Your task to perform on an android device: Empty the shopping cart on bestbuy. Search for logitech g pro on bestbuy, select the first entry, and add it to the cart. Image 0: 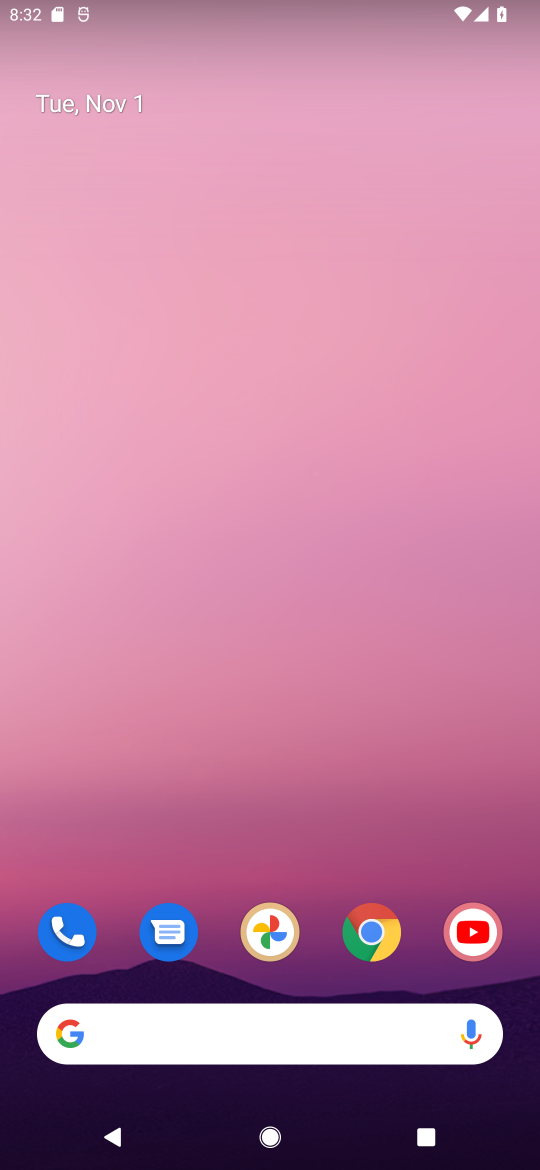
Step 0: click (380, 940)
Your task to perform on an android device: Empty the shopping cart on bestbuy. Search for logitech g pro on bestbuy, select the first entry, and add it to the cart. Image 1: 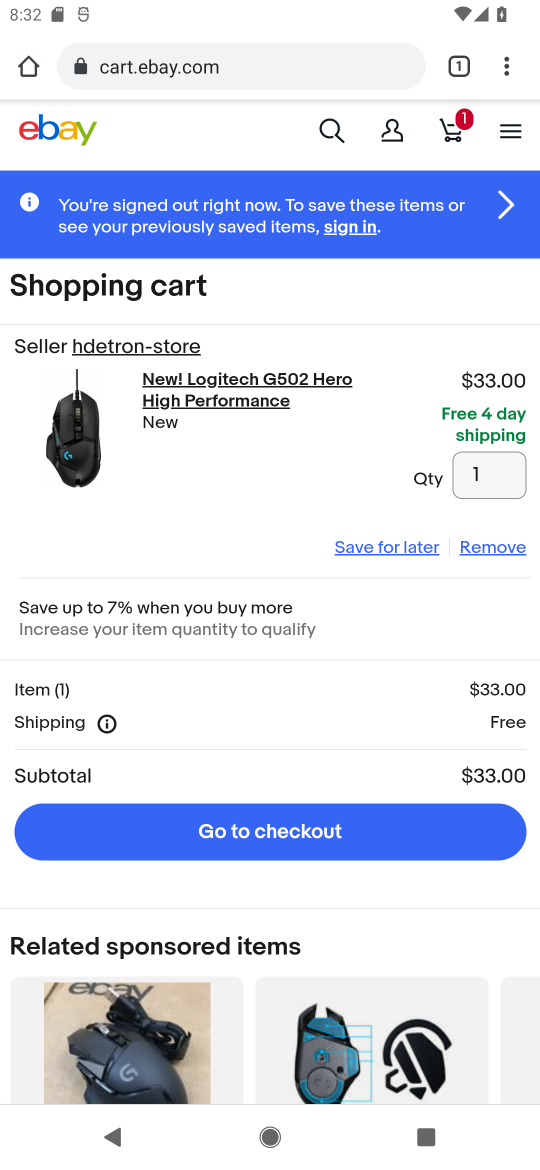
Step 1: click (221, 56)
Your task to perform on an android device: Empty the shopping cart on bestbuy. Search for logitech g pro on bestbuy, select the first entry, and add it to the cart. Image 2: 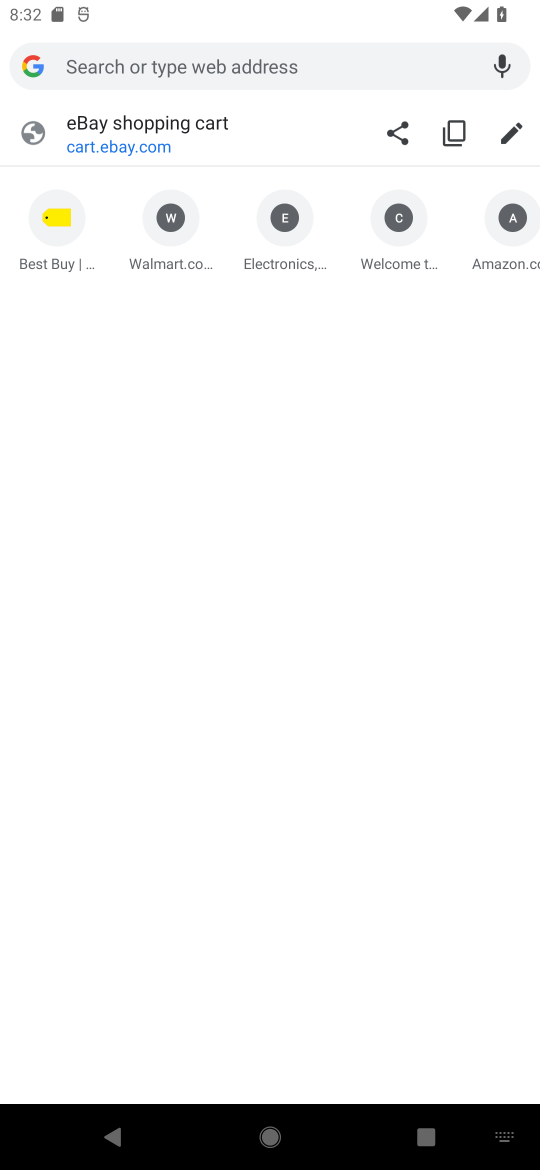
Step 2: type "bestbuy.com"
Your task to perform on an android device: Empty the shopping cart on bestbuy. Search for logitech g pro on bestbuy, select the first entry, and add it to the cart. Image 3: 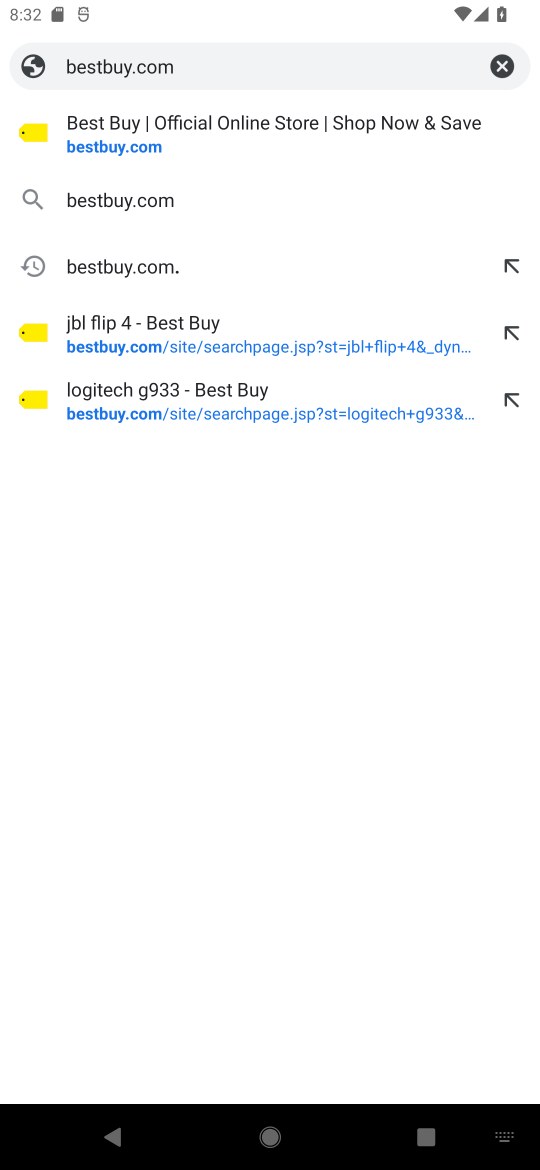
Step 3: click (121, 162)
Your task to perform on an android device: Empty the shopping cart on bestbuy. Search for logitech g pro on bestbuy, select the first entry, and add it to the cart. Image 4: 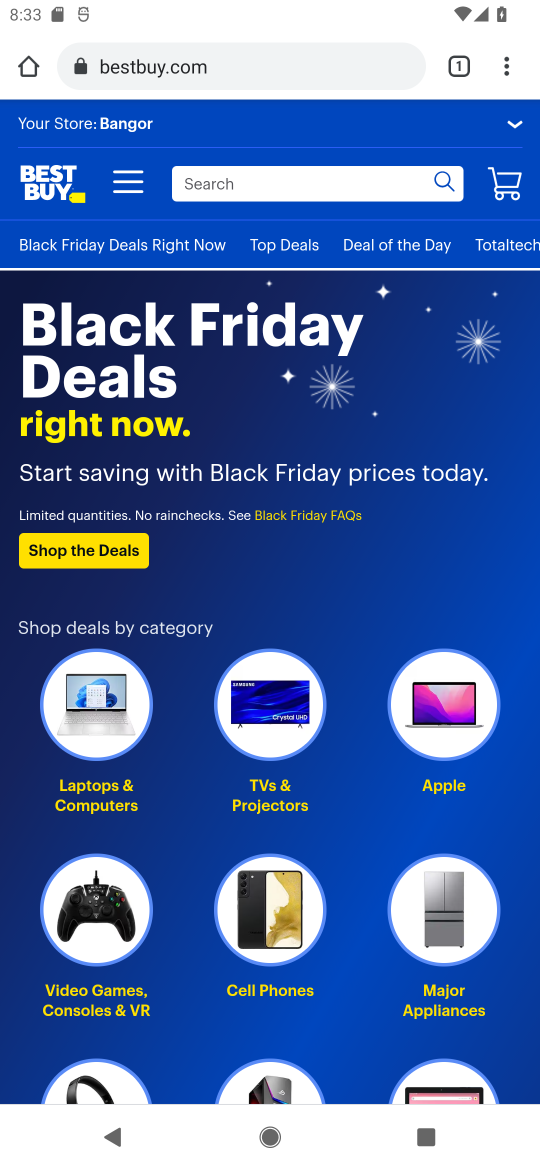
Step 4: click (506, 194)
Your task to perform on an android device: Empty the shopping cart on bestbuy. Search for logitech g pro on bestbuy, select the first entry, and add it to the cart. Image 5: 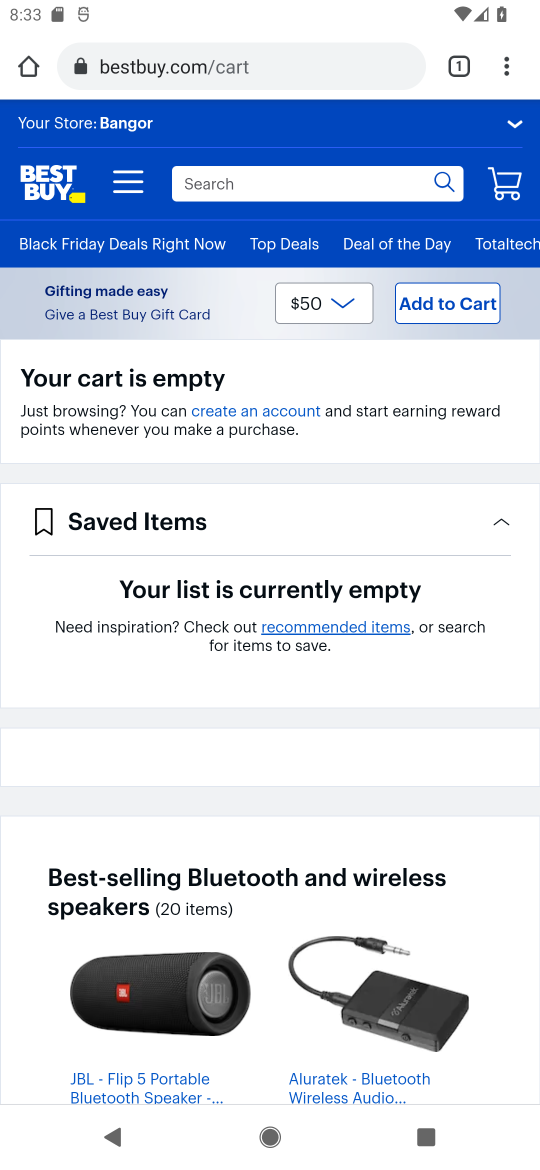
Step 5: click (303, 178)
Your task to perform on an android device: Empty the shopping cart on bestbuy. Search for logitech g pro on bestbuy, select the first entry, and add it to the cart. Image 6: 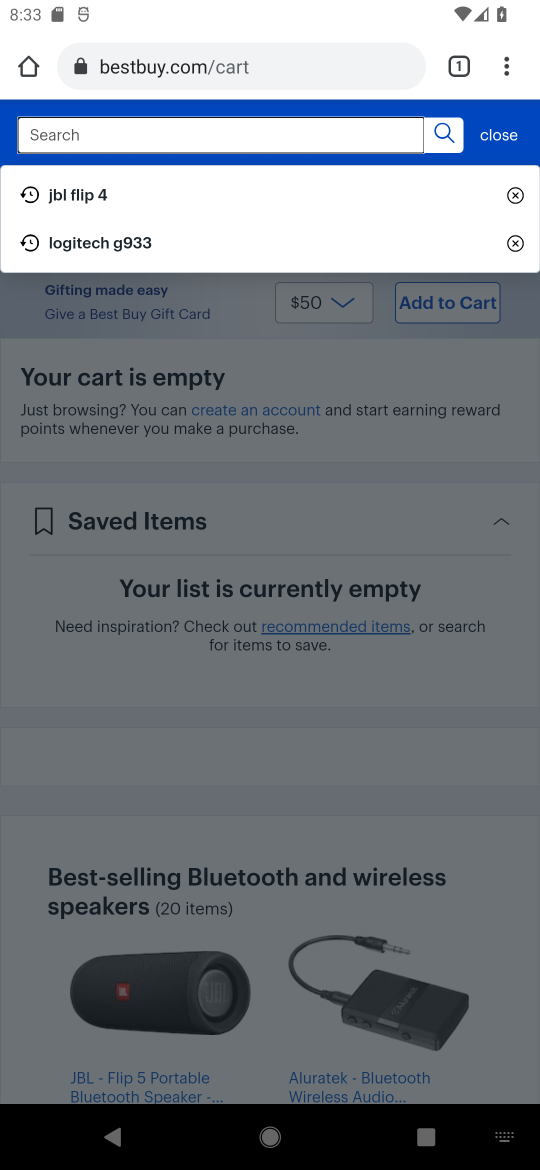
Step 6: type "logitech g pro"
Your task to perform on an android device: Empty the shopping cart on bestbuy. Search for logitech g pro on bestbuy, select the first entry, and add it to the cart. Image 7: 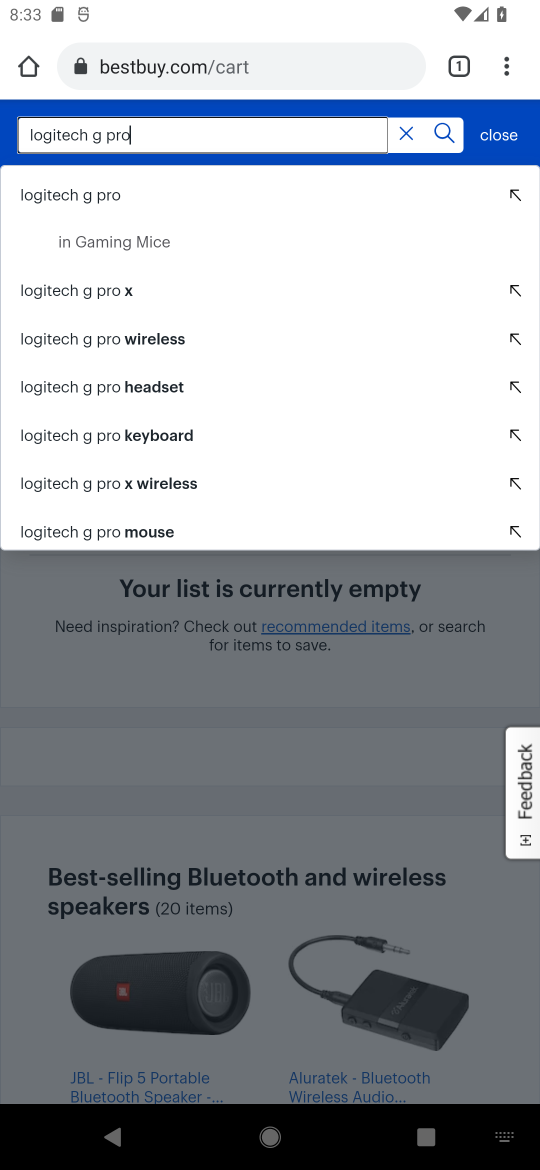
Step 7: click (67, 196)
Your task to perform on an android device: Empty the shopping cart on bestbuy. Search for logitech g pro on bestbuy, select the first entry, and add it to the cart. Image 8: 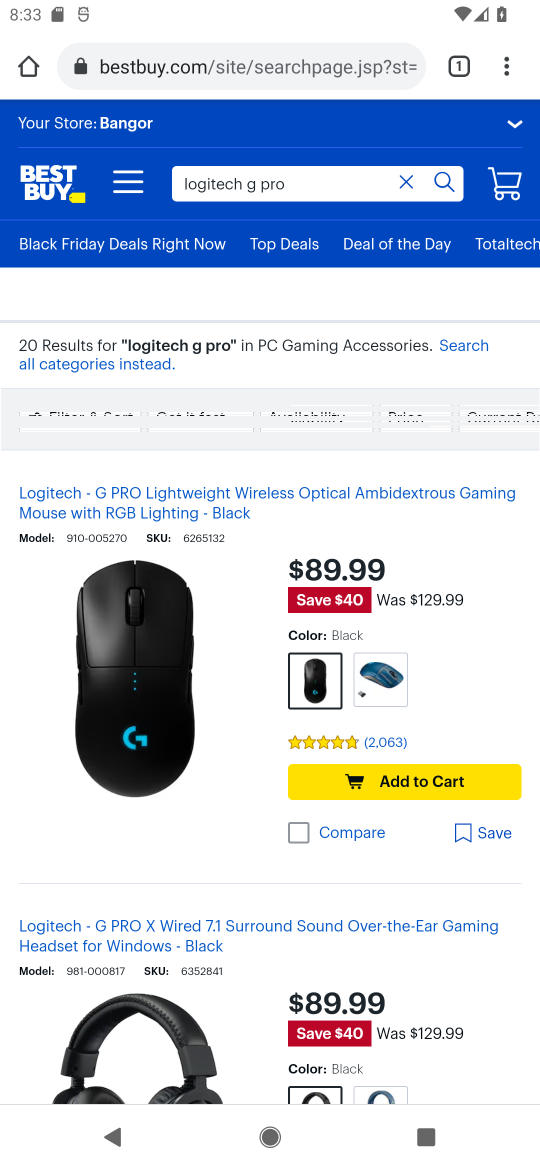
Step 8: click (166, 658)
Your task to perform on an android device: Empty the shopping cart on bestbuy. Search for logitech g pro on bestbuy, select the first entry, and add it to the cart. Image 9: 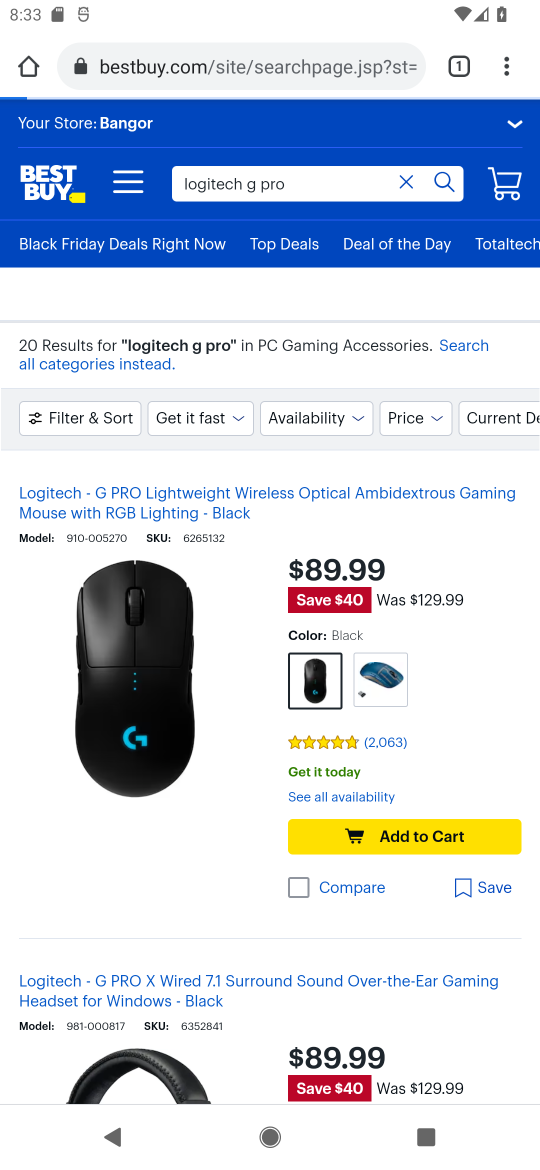
Step 9: click (382, 835)
Your task to perform on an android device: Empty the shopping cart on bestbuy. Search for logitech g pro on bestbuy, select the first entry, and add it to the cart. Image 10: 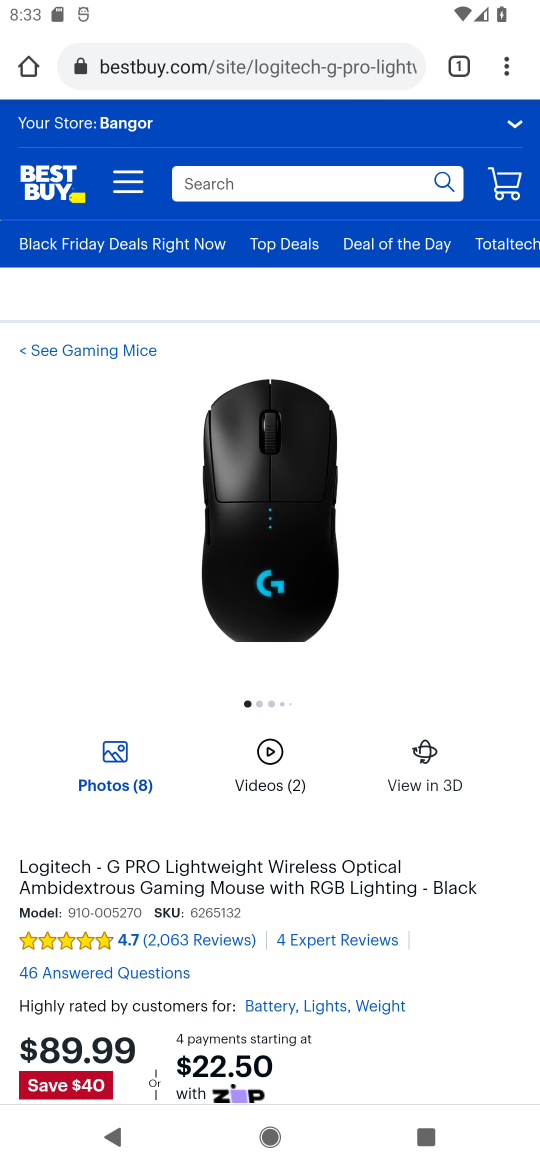
Step 10: drag from (250, 886) to (286, 497)
Your task to perform on an android device: Empty the shopping cart on bestbuy. Search for logitech g pro on bestbuy, select the first entry, and add it to the cart. Image 11: 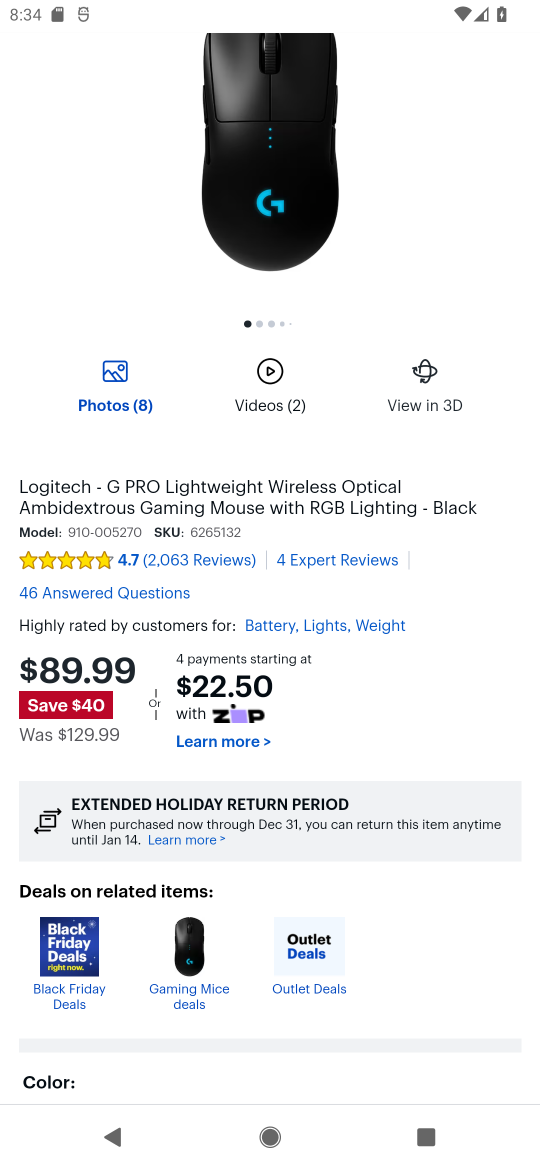
Step 11: drag from (258, 829) to (286, 459)
Your task to perform on an android device: Empty the shopping cart on bestbuy. Search for logitech g pro on bestbuy, select the first entry, and add it to the cart. Image 12: 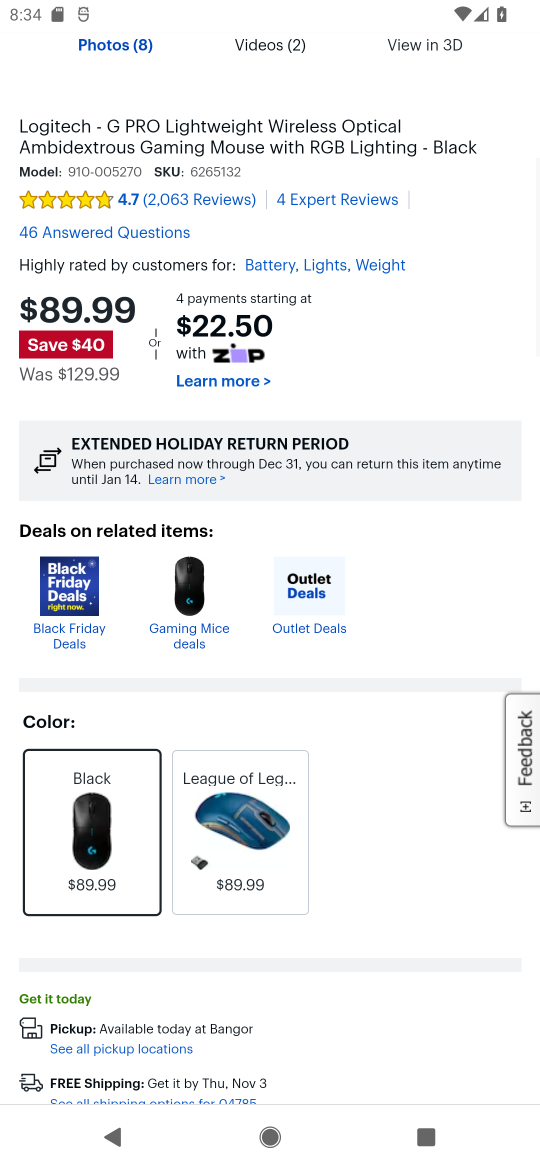
Step 12: drag from (232, 933) to (250, 534)
Your task to perform on an android device: Empty the shopping cart on bestbuy. Search for logitech g pro on bestbuy, select the first entry, and add it to the cart. Image 13: 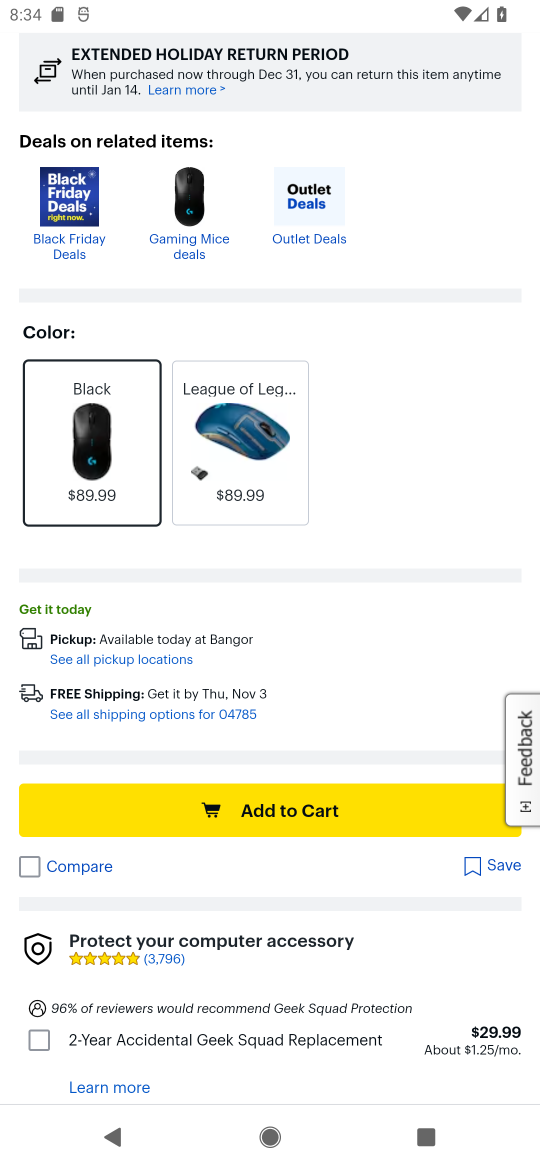
Step 13: click (240, 811)
Your task to perform on an android device: Empty the shopping cart on bestbuy. Search for logitech g pro on bestbuy, select the first entry, and add it to the cart. Image 14: 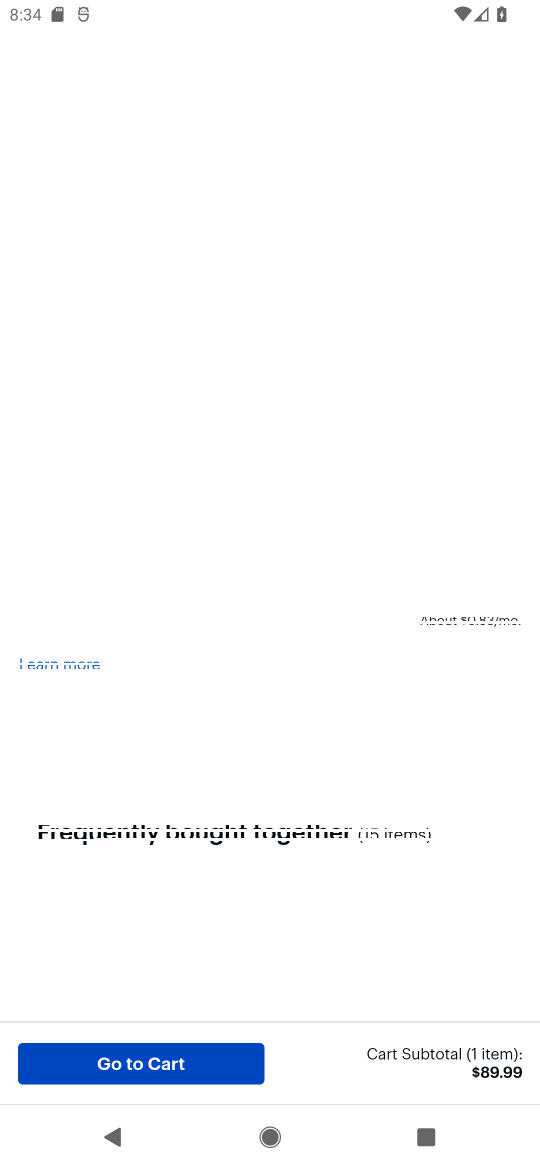
Step 14: task complete